Your task to perform on an android device: check out phone information Image 0: 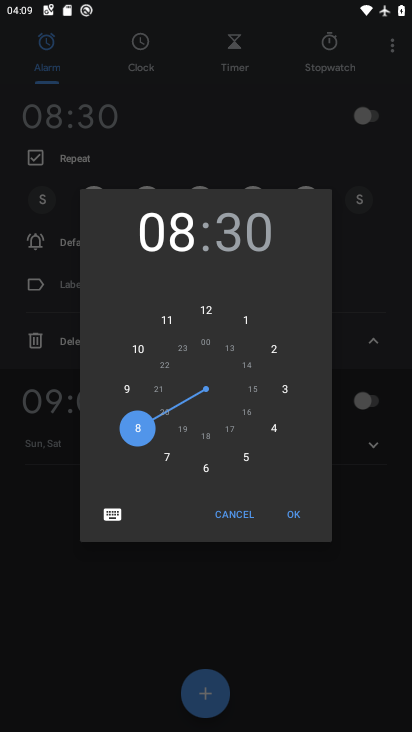
Step 0: press home button
Your task to perform on an android device: check out phone information Image 1: 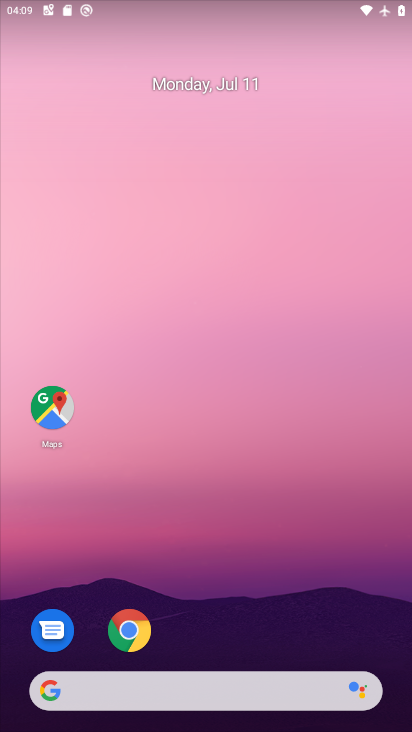
Step 1: drag from (308, 622) to (237, 227)
Your task to perform on an android device: check out phone information Image 2: 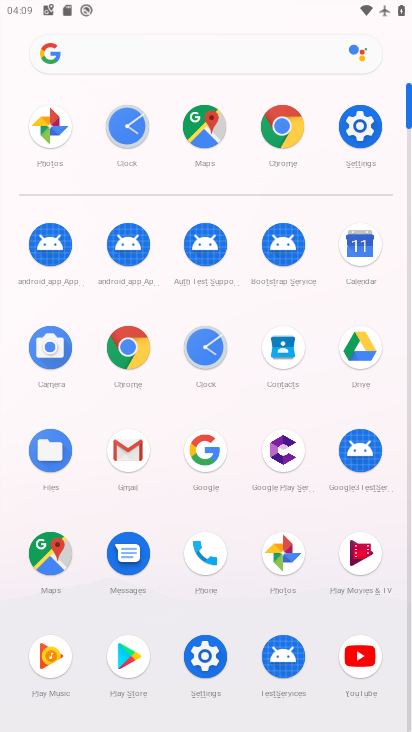
Step 2: click (345, 134)
Your task to perform on an android device: check out phone information Image 3: 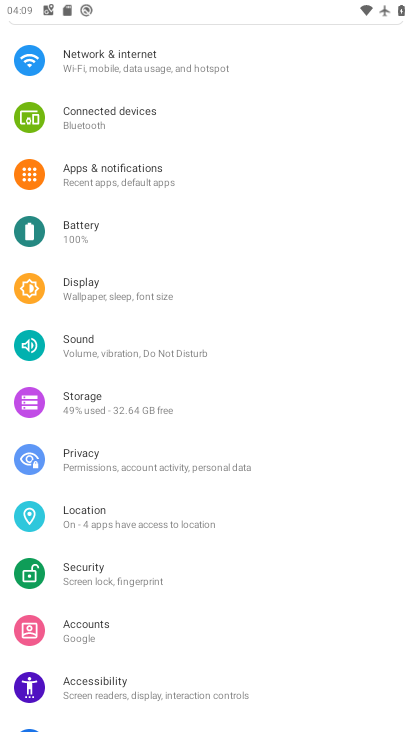
Step 3: drag from (148, 653) to (140, 264)
Your task to perform on an android device: check out phone information Image 4: 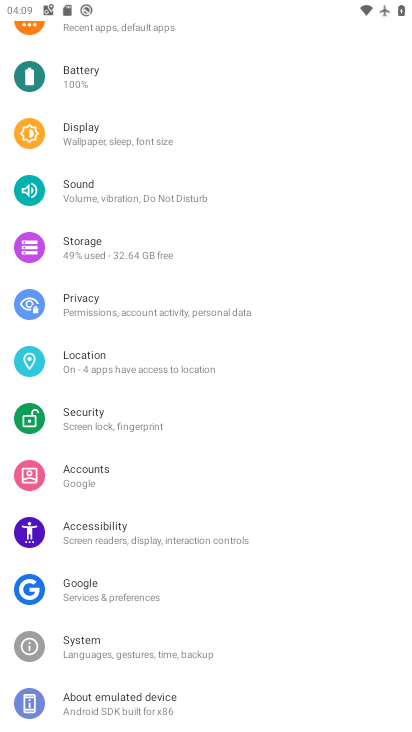
Step 4: click (165, 630)
Your task to perform on an android device: check out phone information Image 5: 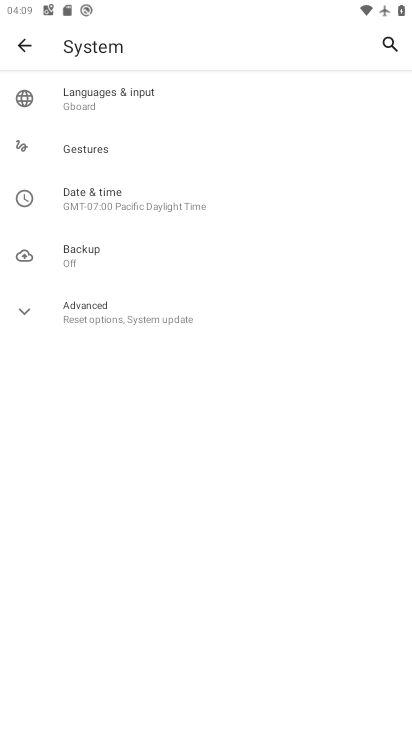
Step 5: task complete